Your task to perform on an android device: remove spam from my inbox in the gmail app Image 0: 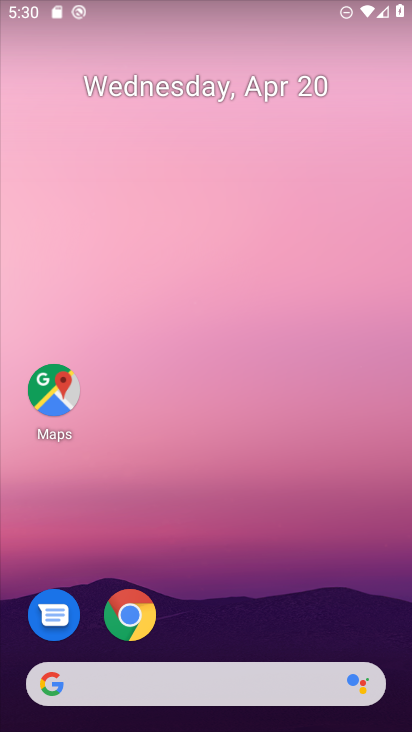
Step 0: drag from (247, 615) to (233, 53)
Your task to perform on an android device: remove spam from my inbox in the gmail app Image 1: 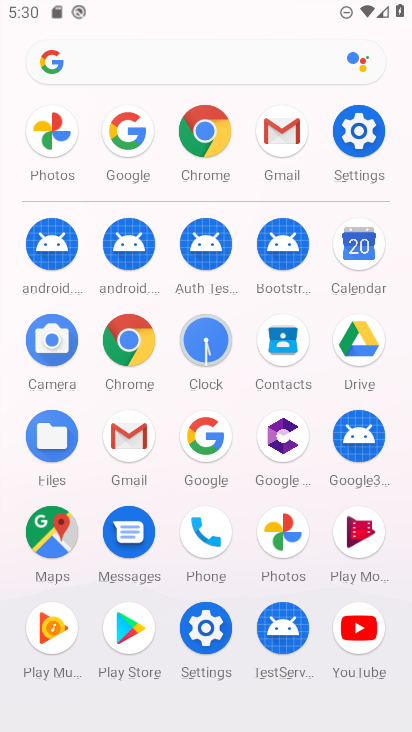
Step 1: click (281, 128)
Your task to perform on an android device: remove spam from my inbox in the gmail app Image 2: 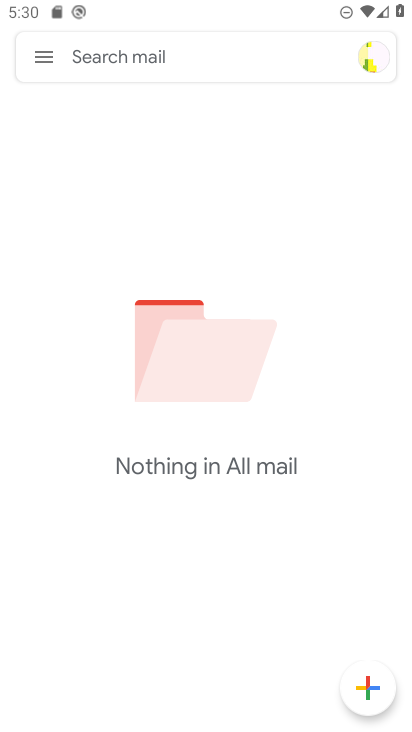
Step 2: click (32, 43)
Your task to perform on an android device: remove spam from my inbox in the gmail app Image 3: 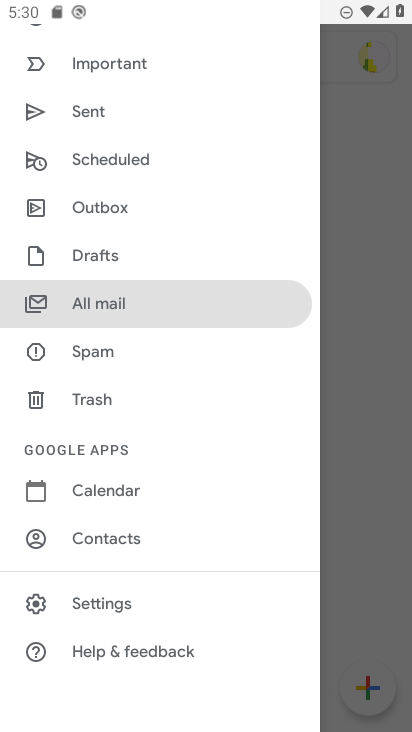
Step 3: click (123, 354)
Your task to perform on an android device: remove spam from my inbox in the gmail app Image 4: 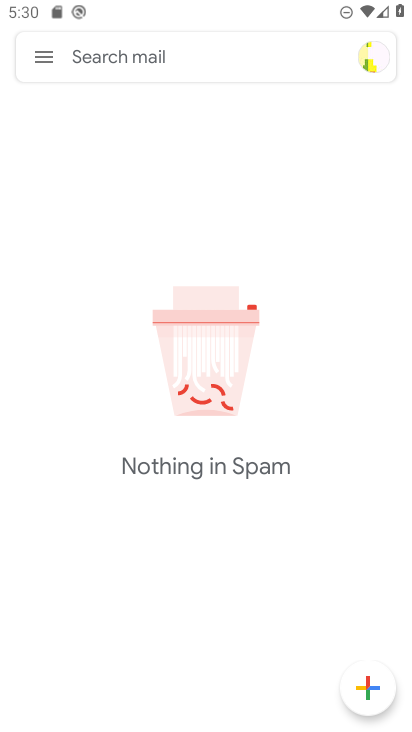
Step 4: task complete